Your task to perform on an android device: install app "Google Photos" Image 0: 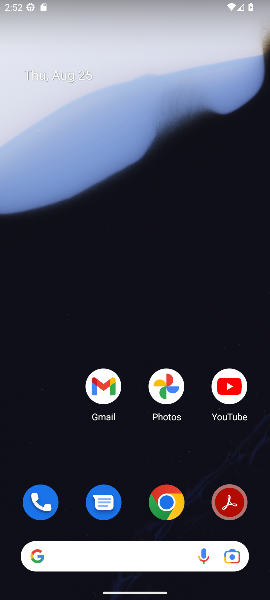
Step 0: click (173, 373)
Your task to perform on an android device: install app "Google Photos" Image 1: 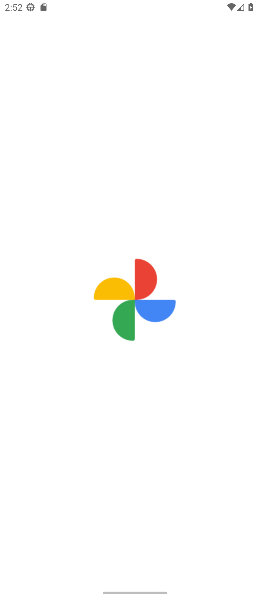
Step 1: task complete